Your task to perform on an android device: Open Amazon Image 0: 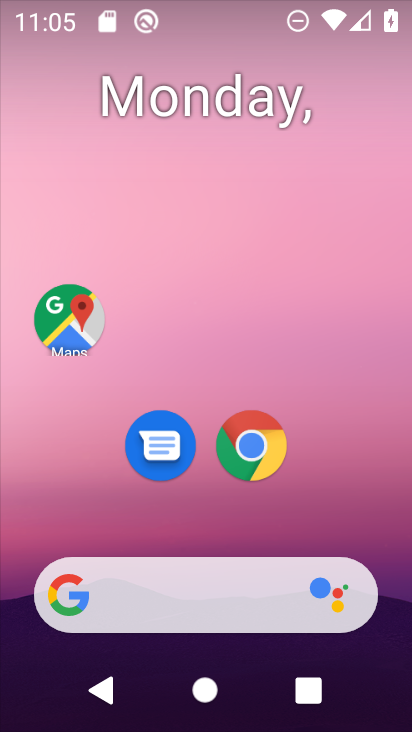
Step 0: click (248, 447)
Your task to perform on an android device: Open Amazon Image 1: 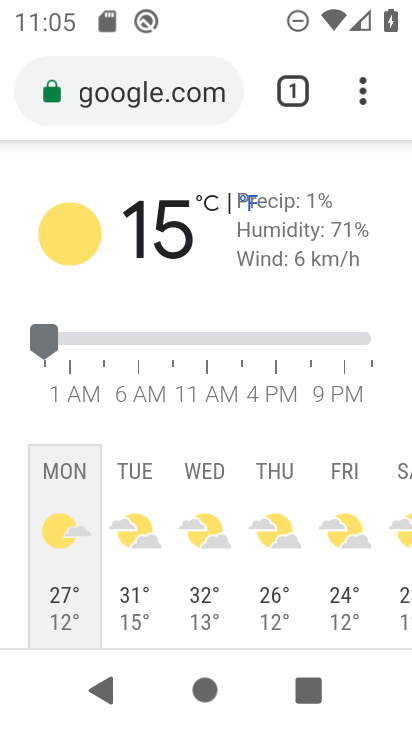
Step 1: click (118, 99)
Your task to perform on an android device: Open Amazon Image 2: 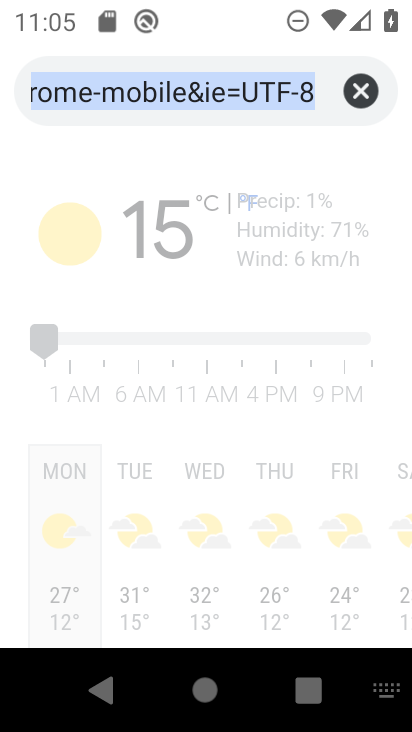
Step 2: type "Amazon"
Your task to perform on an android device: Open Amazon Image 3: 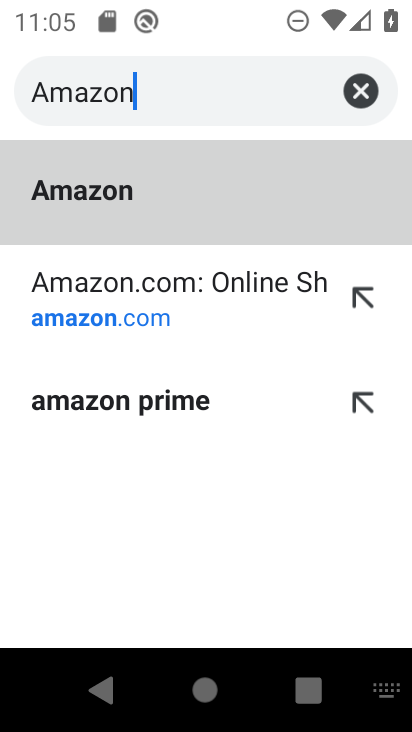
Step 3: click (298, 210)
Your task to perform on an android device: Open Amazon Image 4: 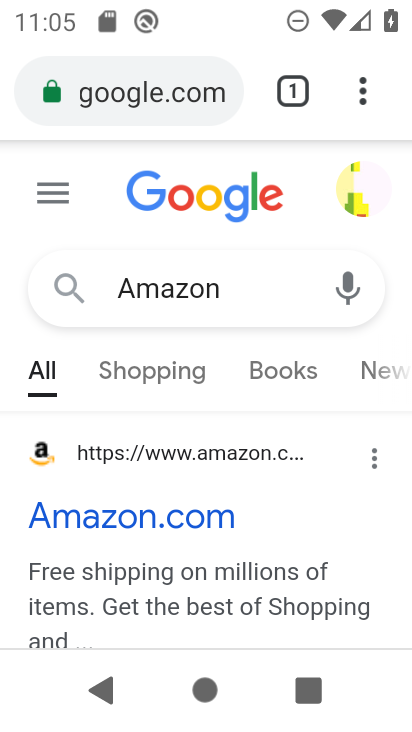
Step 4: task complete